Your task to perform on an android device: Open Yahoo.com Image 0: 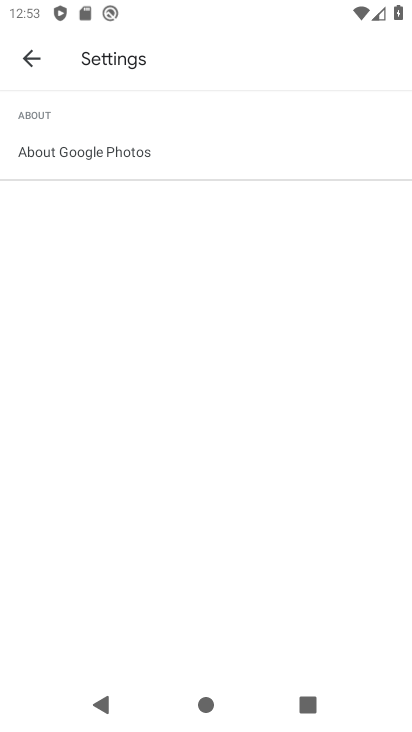
Step 0: press home button
Your task to perform on an android device: Open Yahoo.com Image 1: 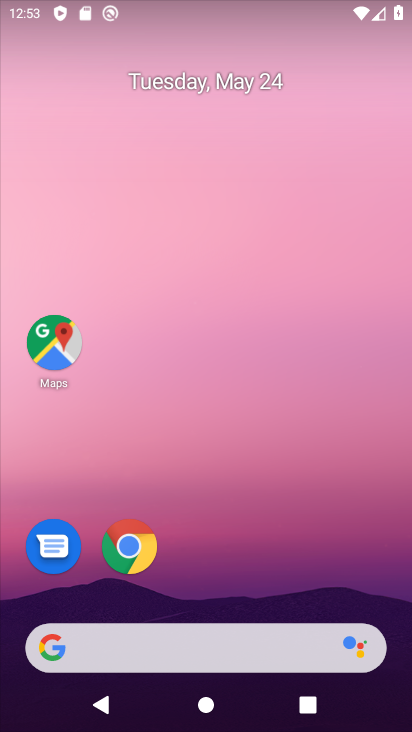
Step 1: click (135, 552)
Your task to perform on an android device: Open Yahoo.com Image 2: 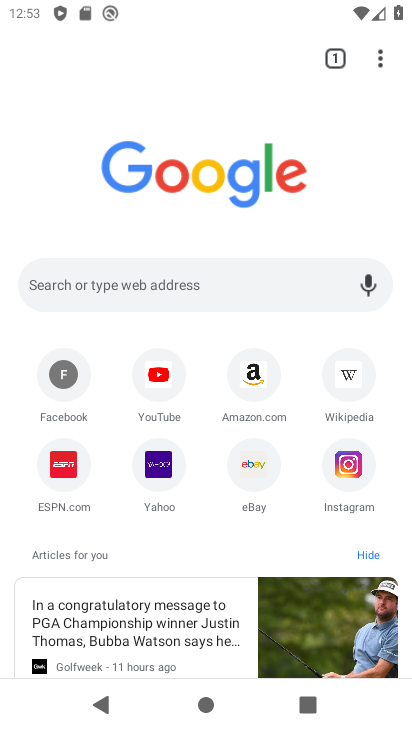
Step 2: click (175, 490)
Your task to perform on an android device: Open Yahoo.com Image 3: 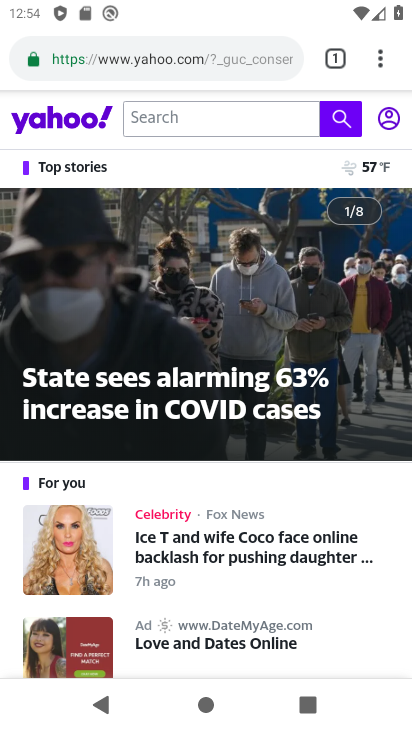
Step 3: task complete